Your task to perform on an android device: toggle show notifications on the lock screen Image 0: 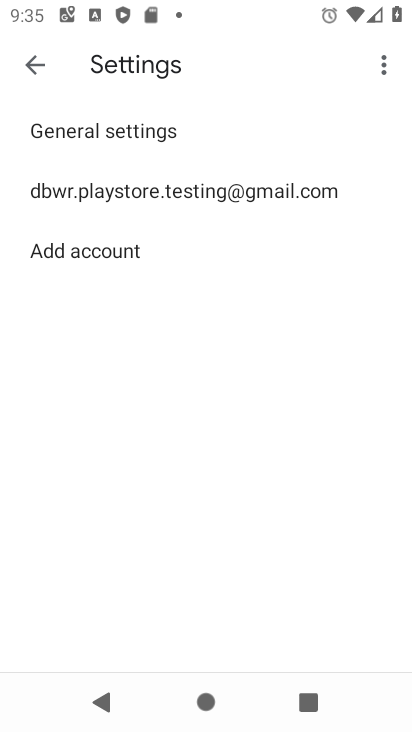
Step 0: press back button
Your task to perform on an android device: toggle show notifications on the lock screen Image 1: 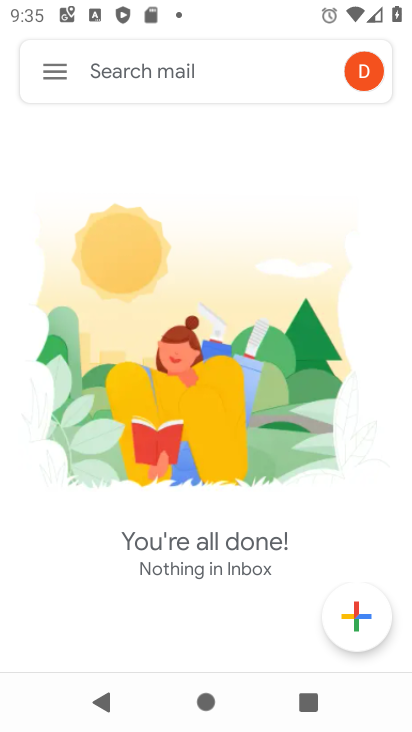
Step 1: press back button
Your task to perform on an android device: toggle show notifications on the lock screen Image 2: 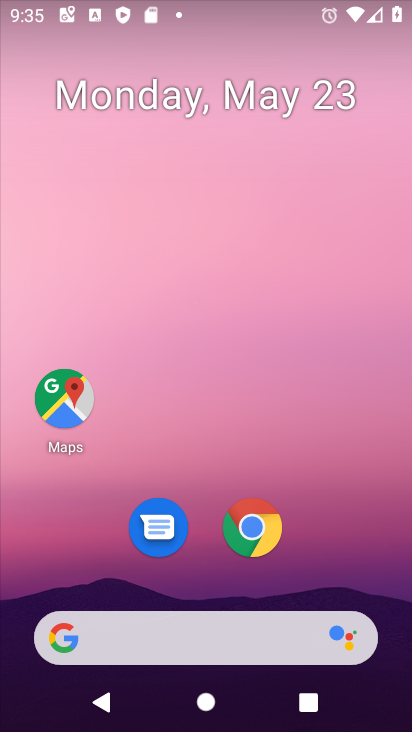
Step 2: drag from (338, 448) to (286, 62)
Your task to perform on an android device: toggle show notifications on the lock screen Image 3: 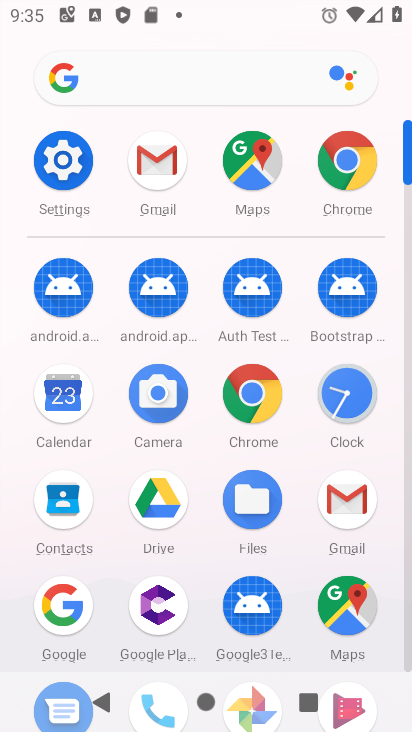
Step 3: click (59, 157)
Your task to perform on an android device: toggle show notifications on the lock screen Image 4: 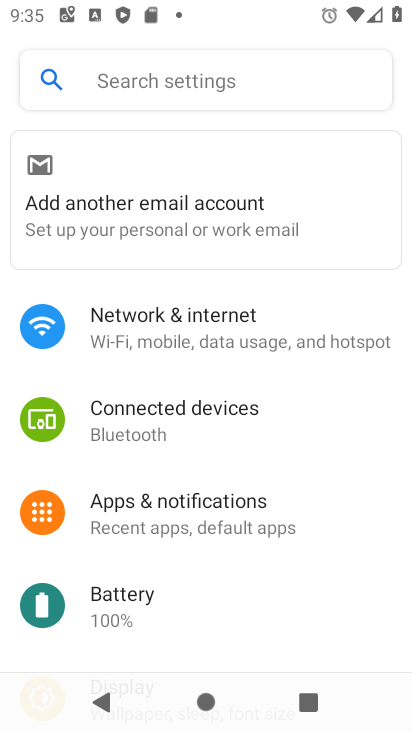
Step 4: drag from (318, 546) to (318, 143)
Your task to perform on an android device: toggle show notifications on the lock screen Image 5: 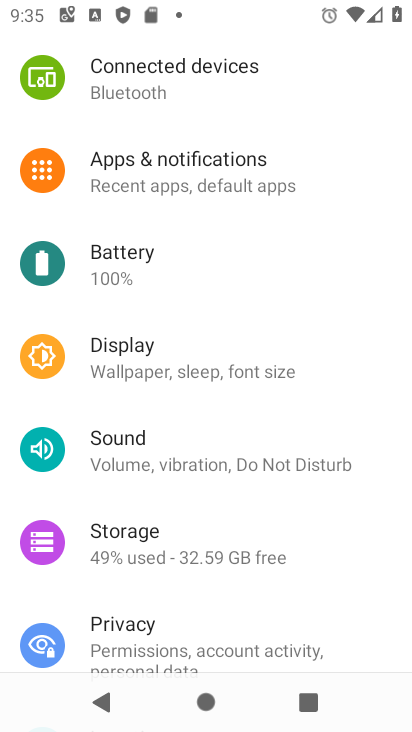
Step 5: click (240, 173)
Your task to perform on an android device: toggle show notifications on the lock screen Image 6: 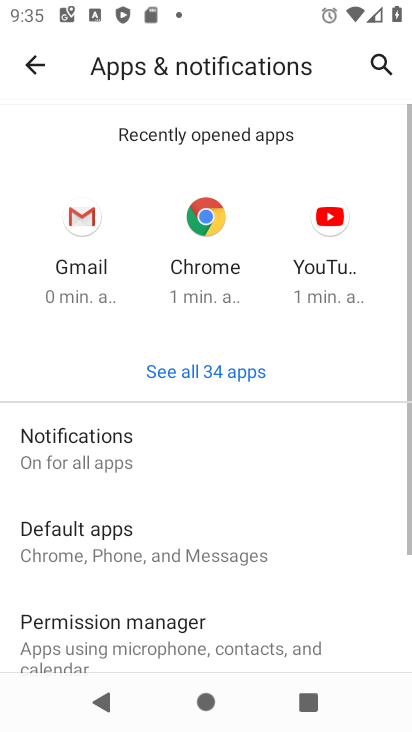
Step 6: click (168, 452)
Your task to perform on an android device: toggle show notifications on the lock screen Image 7: 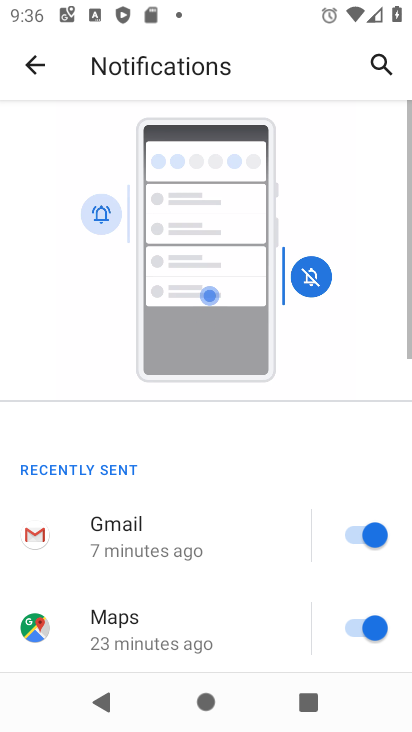
Step 7: drag from (258, 614) to (236, 104)
Your task to perform on an android device: toggle show notifications on the lock screen Image 8: 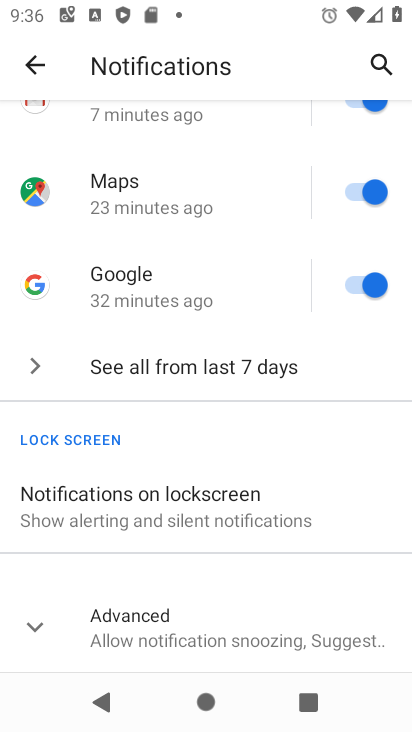
Step 8: drag from (178, 550) to (189, 235)
Your task to perform on an android device: toggle show notifications on the lock screen Image 9: 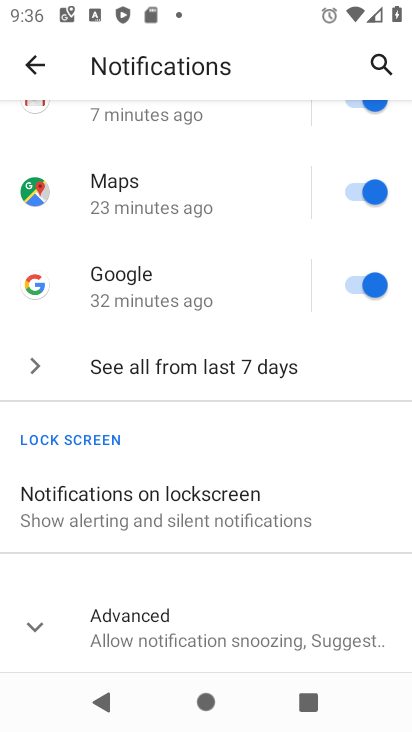
Step 9: click (39, 609)
Your task to perform on an android device: toggle show notifications on the lock screen Image 10: 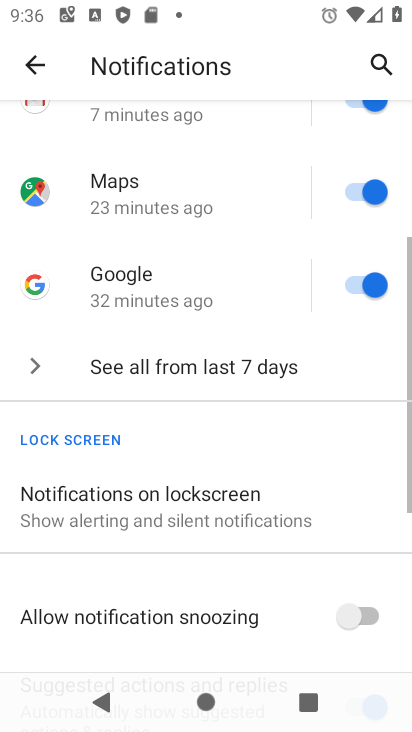
Step 10: drag from (183, 597) to (203, 180)
Your task to perform on an android device: toggle show notifications on the lock screen Image 11: 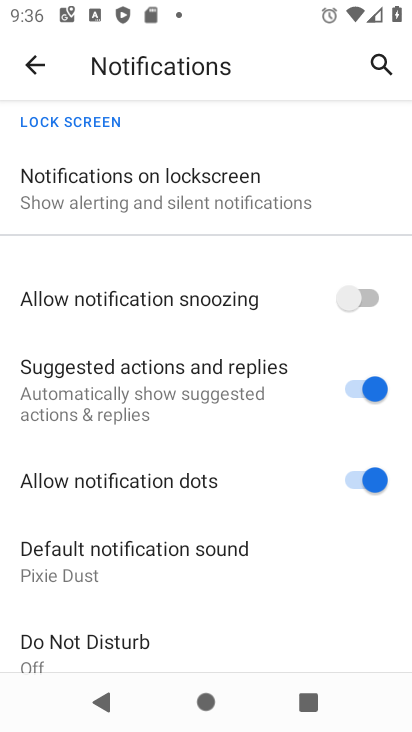
Step 11: drag from (196, 587) to (236, 153)
Your task to perform on an android device: toggle show notifications on the lock screen Image 12: 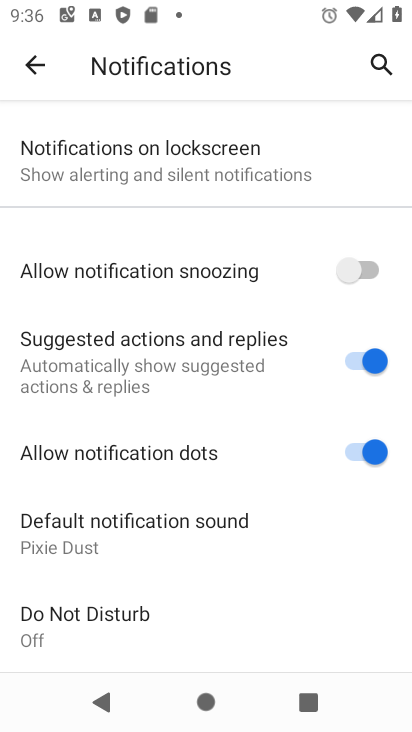
Step 12: drag from (215, 225) to (223, 602)
Your task to perform on an android device: toggle show notifications on the lock screen Image 13: 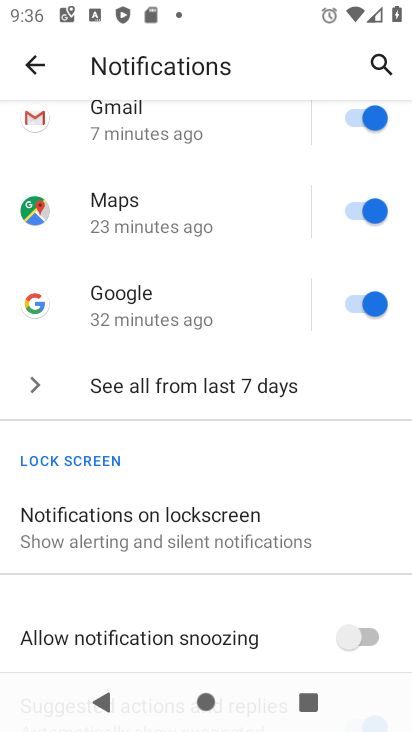
Step 13: click (171, 522)
Your task to perform on an android device: toggle show notifications on the lock screen Image 14: 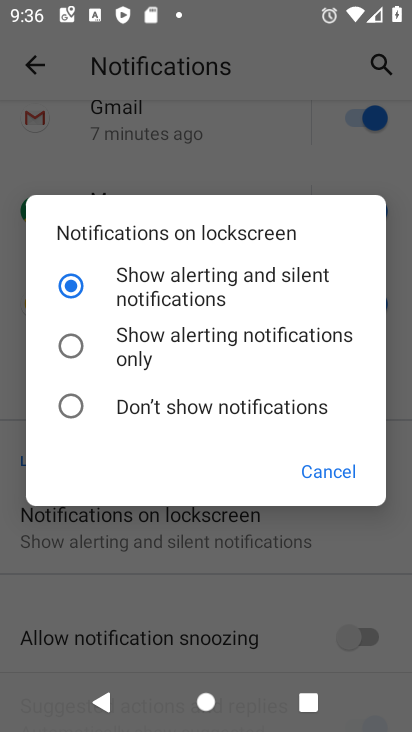
Step 14: click (129, 310)
Your task to perform on an android device: toggle show notifications on the lock screen Image 15: 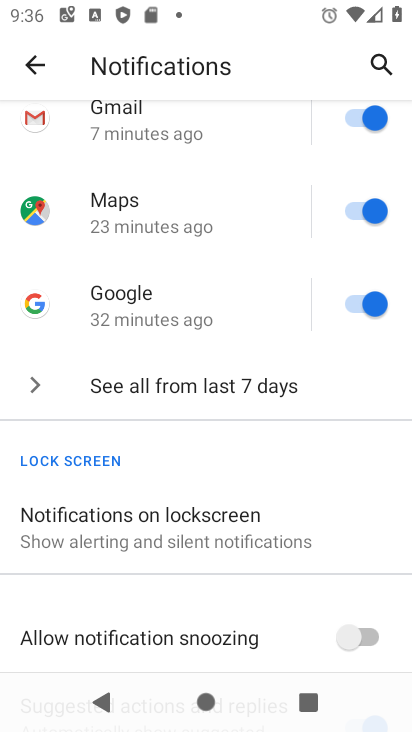
Step 15: click (108, 534)
Your task to perform on an android device: toggle show notifications on the lock screen Image 16: 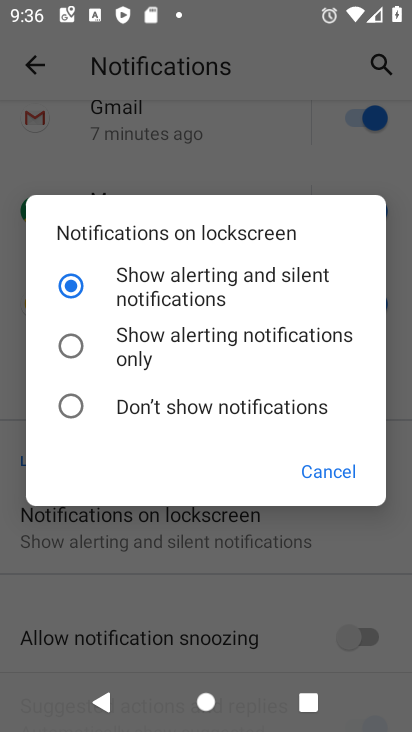
Step 16: click (135, 349)
Your task to perform on an android device: toggle show notifications on the lock screen Image 17: 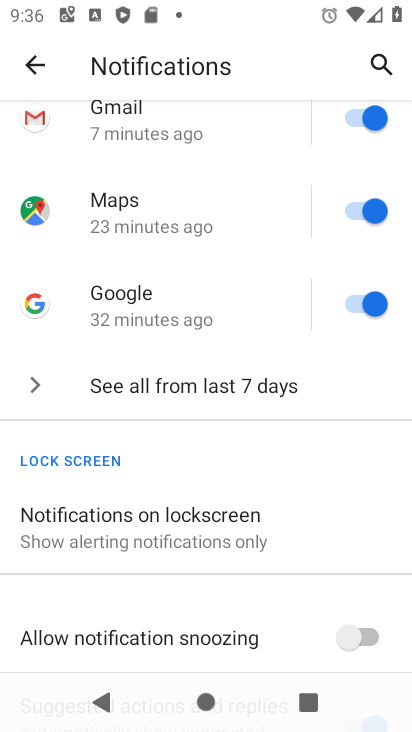
Step 17: task complete